Your task to perform on an android device: Go to CNN.com Image 0: 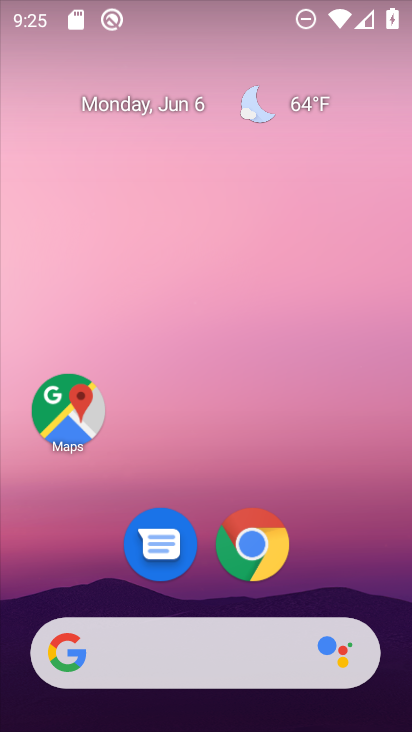
Step 0: click (250, 546)
Your task to perform on an android device: Go to CNN.com Image 1: 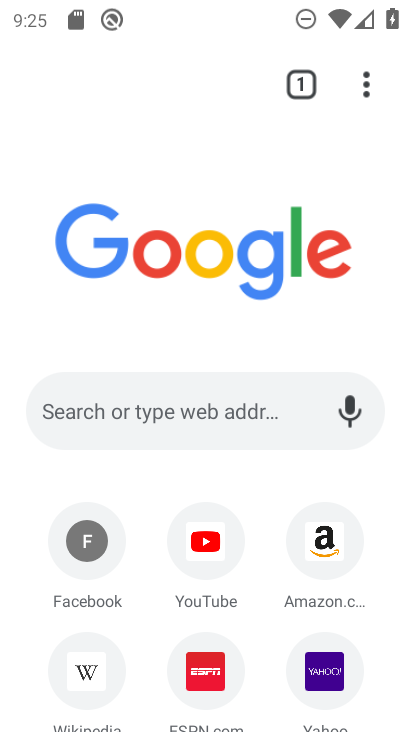
Step 1: click (144, 409)
Your task to perform on an android device: Go to CNN.com Image 2: 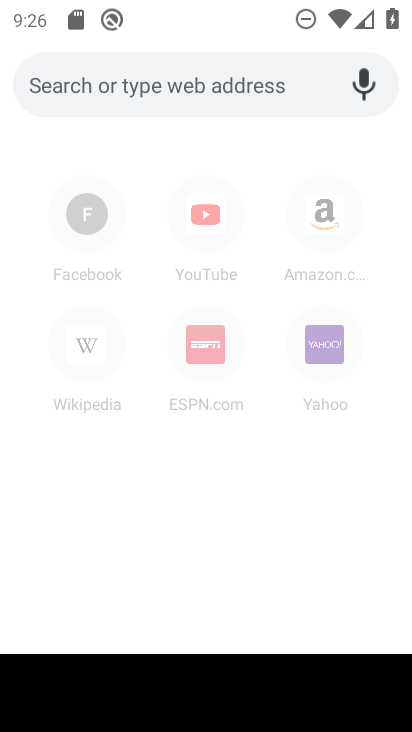
Step 2: type "cnn.com"
Your task to perform on an android device: Go to CNN.com Image 3: 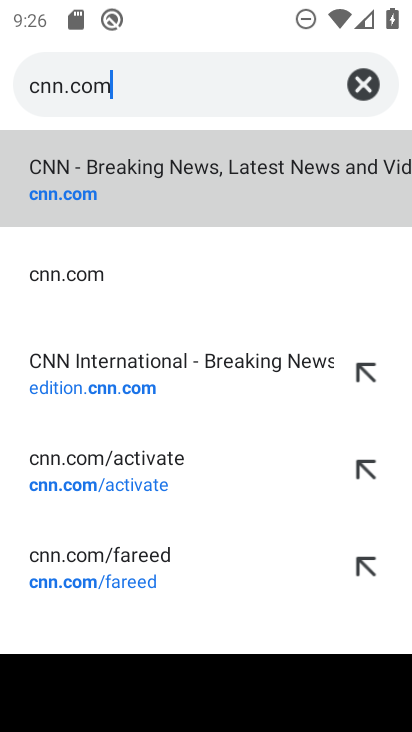
Step 3: click (124, 170)
Your task to perform on an android device: Go to CNN.com Image 4: 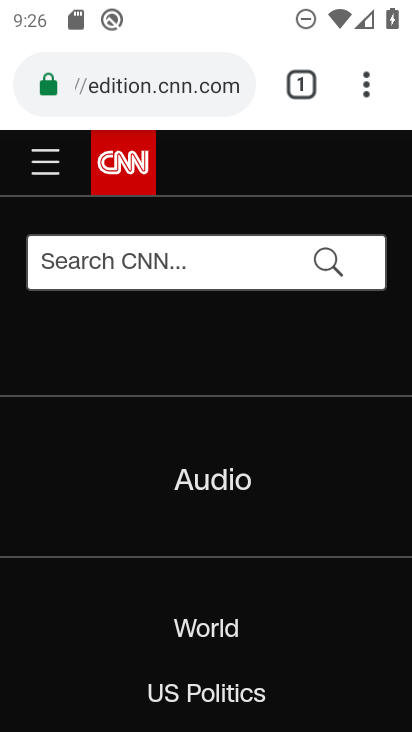
Step 4: task complete